Your task to perform on an android device: check storage Image 0: 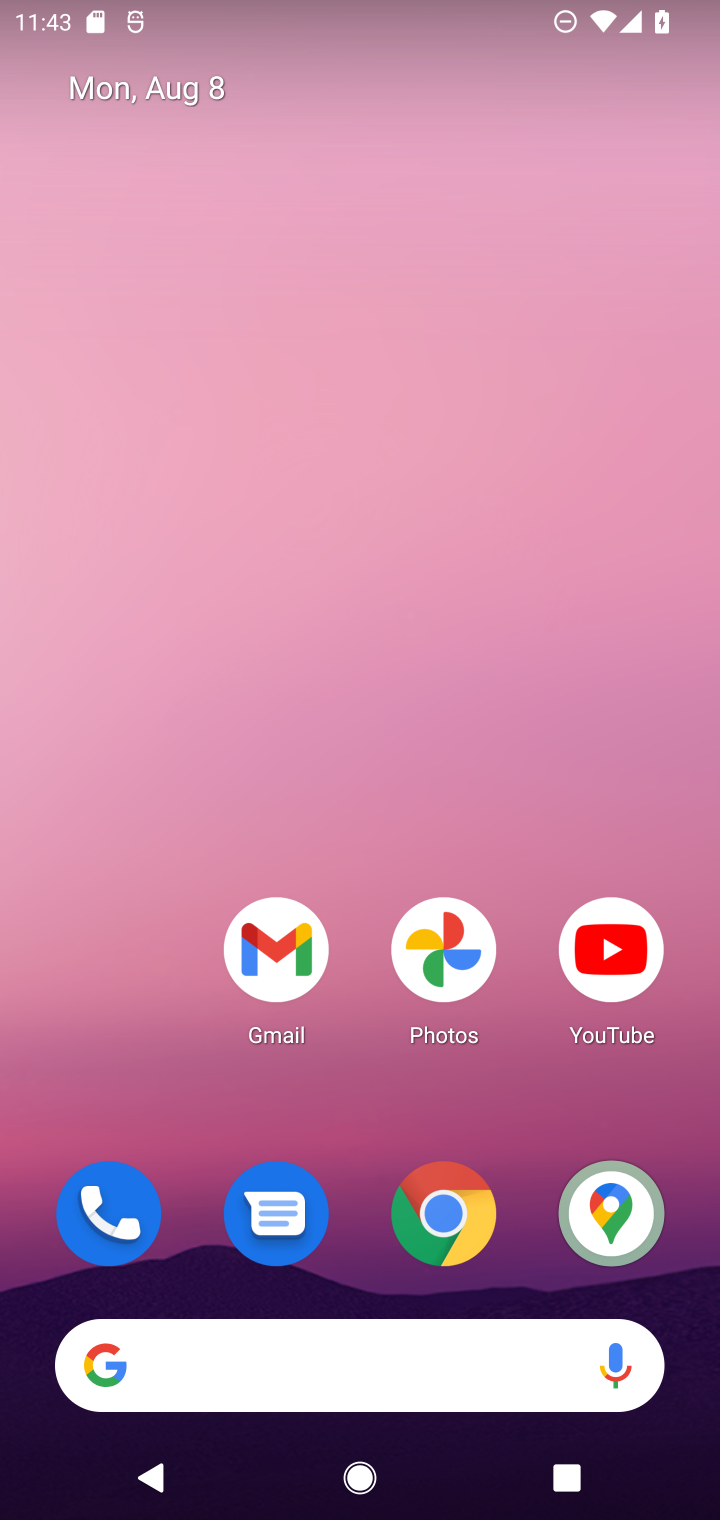
Step 0: press home button
Your task to perform on an android device: check storage Image 1: 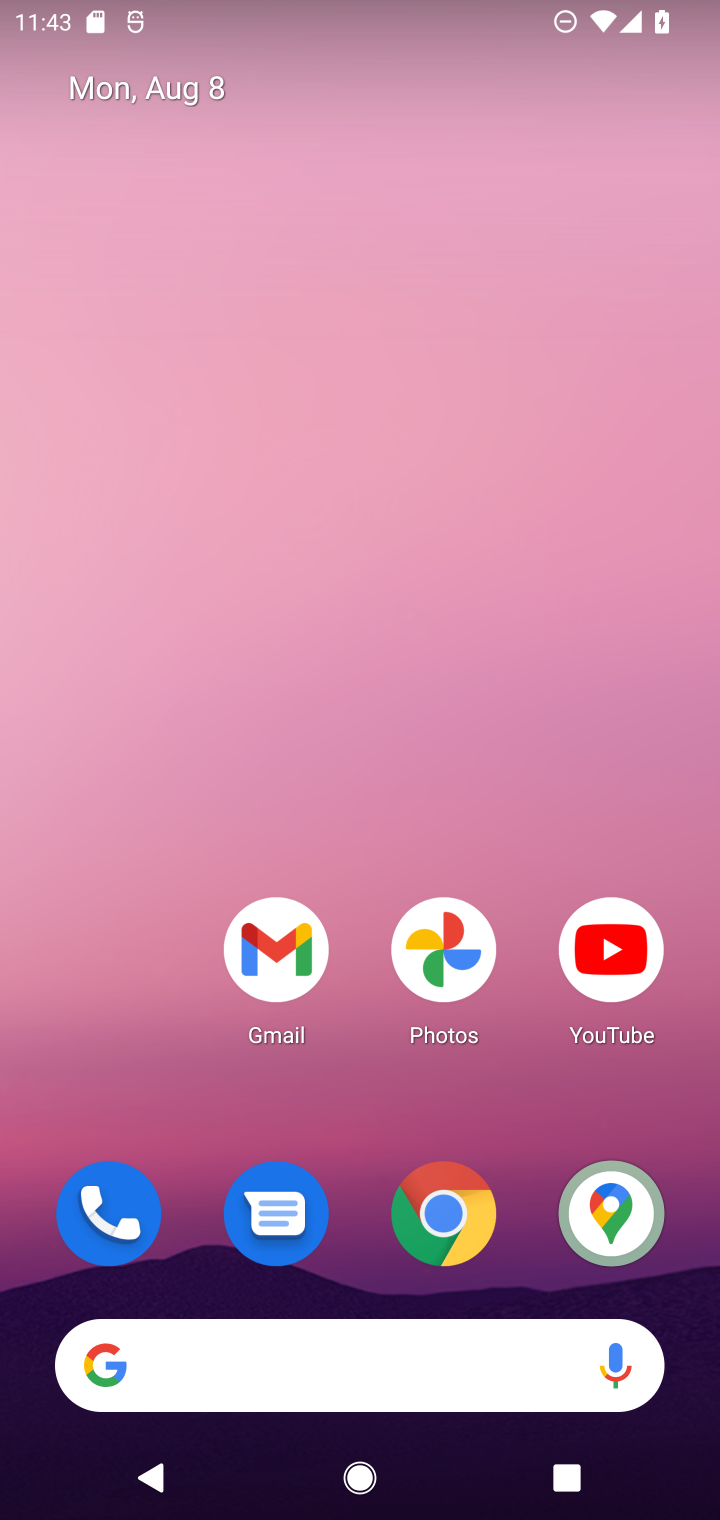
Step 1: drag from (369, 1133) to (429, 148)
Your task to perform on an android device: check storage Image 2: 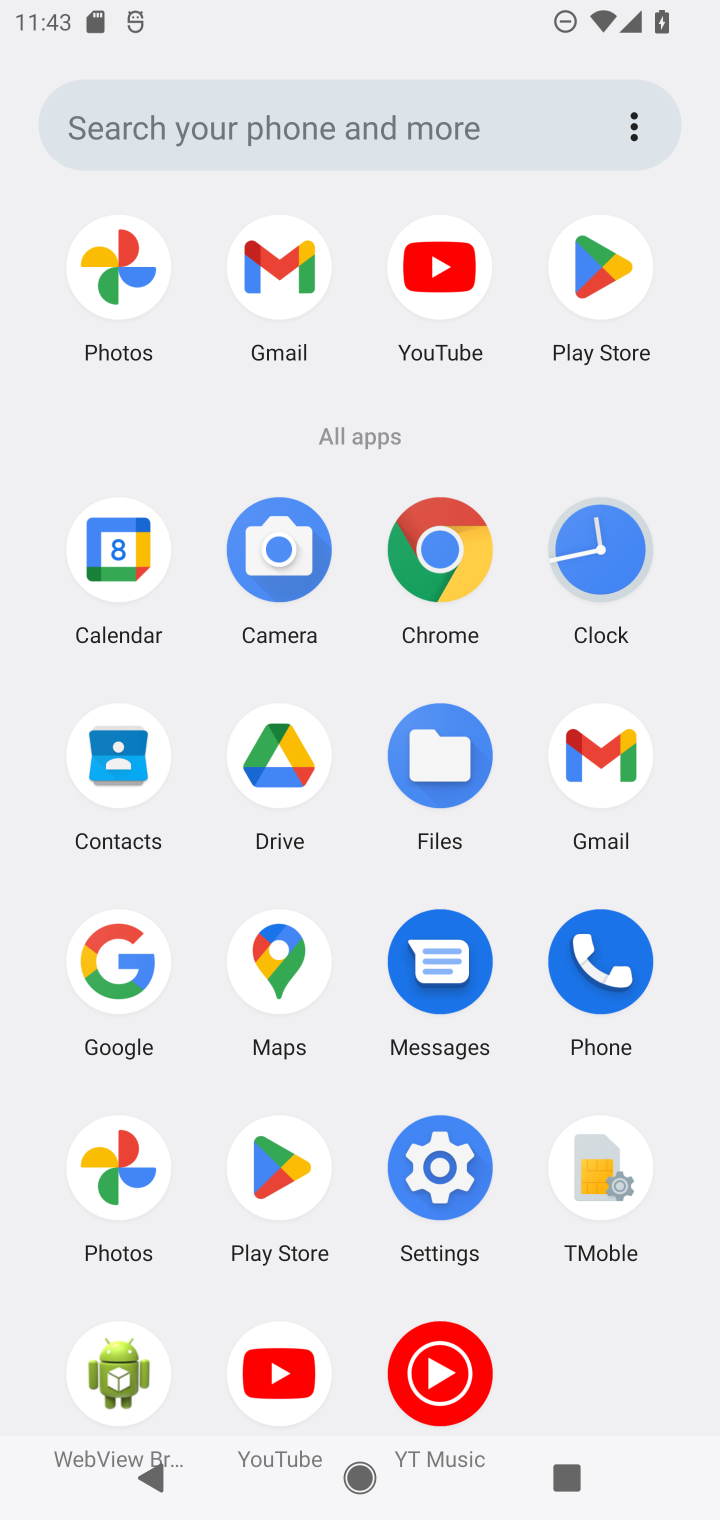
Step 2: click (439, 1158)
Your task to perform on an android device: check storage Image 3: 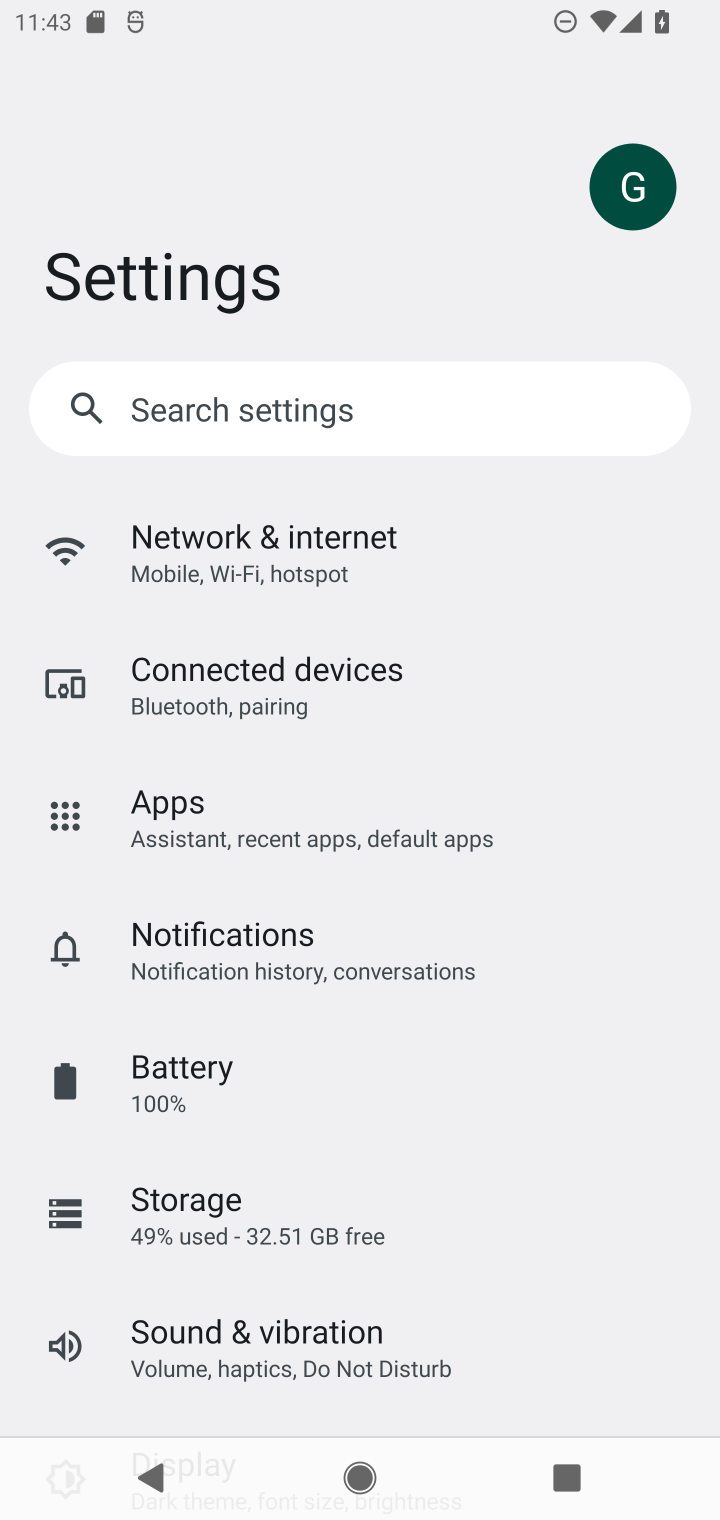
Step 3: click (250, 1210)
Your task to perform on an android device: check storage Image 4: 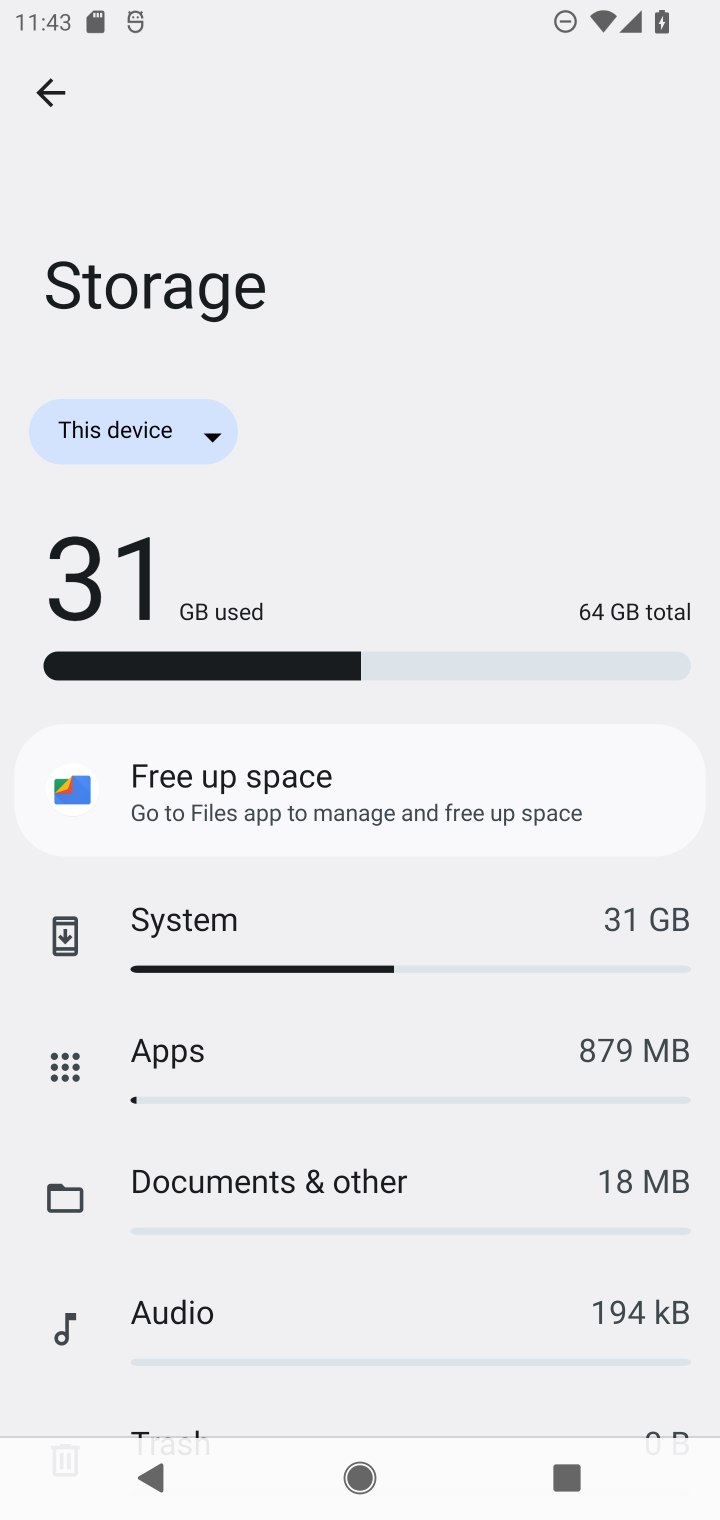
Step 4: task complete